Your task to perform on an android device: Search for 12ft 120W LED tube light on home depot Image 0: 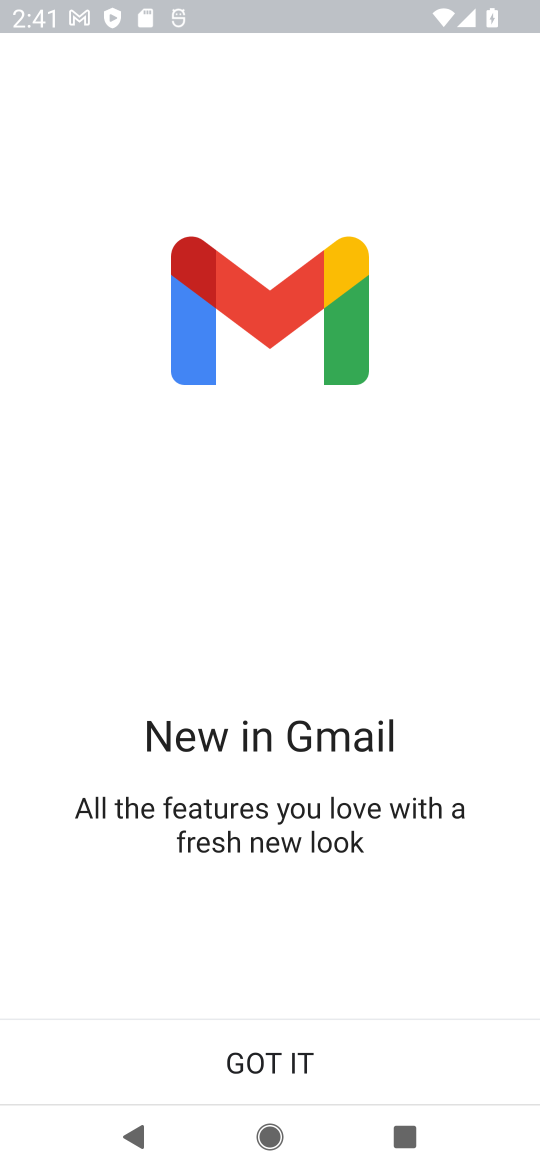
Step 0: press home button
Your task to perform on an android device: Search for 12ft 120W LED tube light on home depot Image 1: 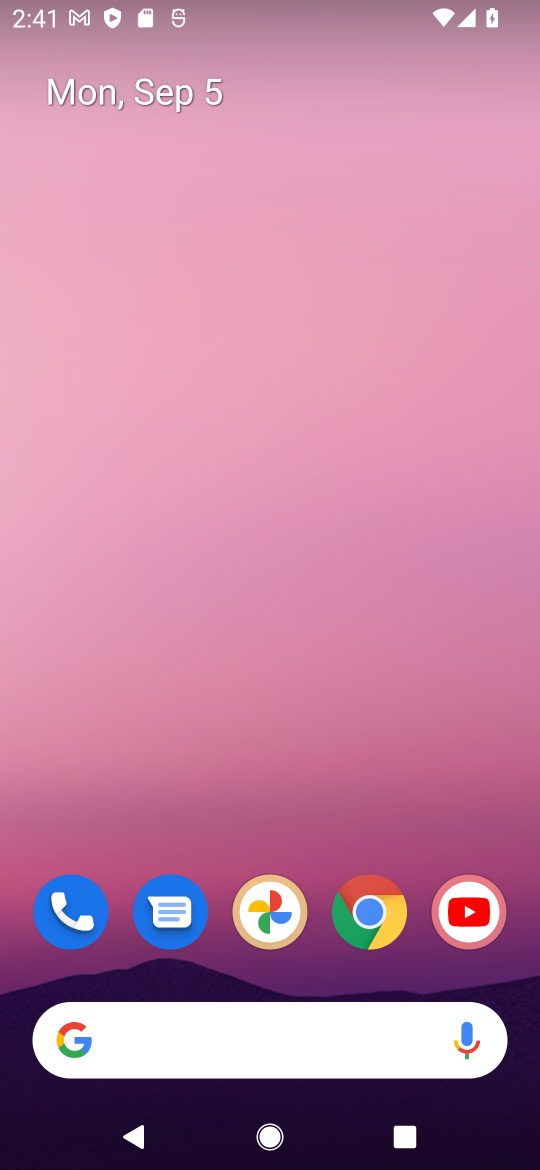
Step 1: click (364, 909)
Your task to perform on an android device: Search for 12ft 120W LED tube light on home depot Image 2: 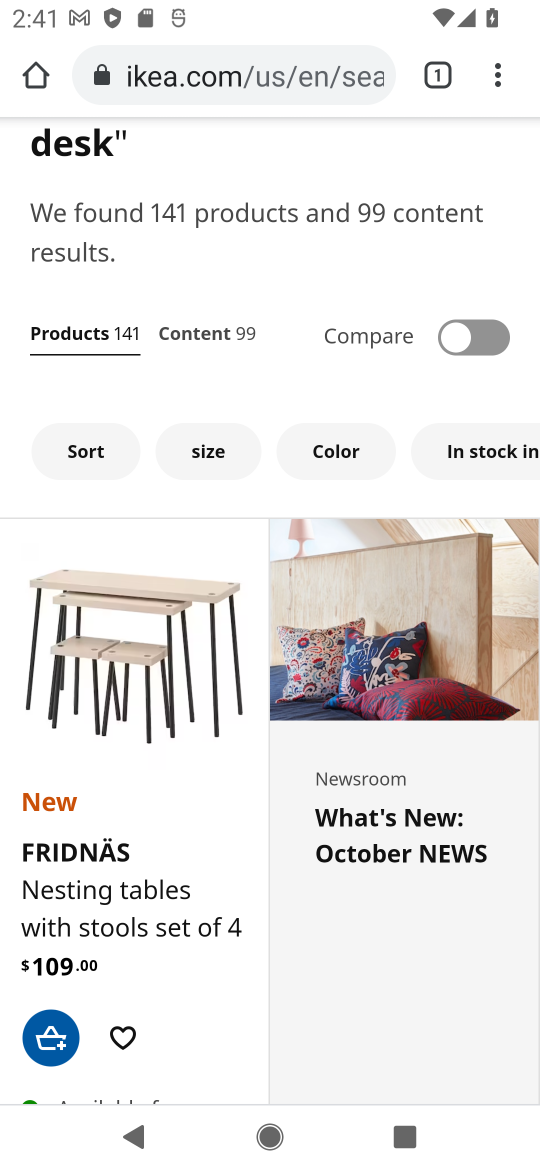
Step 2: click (268, 79)
Your task to perform on an android device: Search for 12ft 120W LED tube light on home depot Image 3: 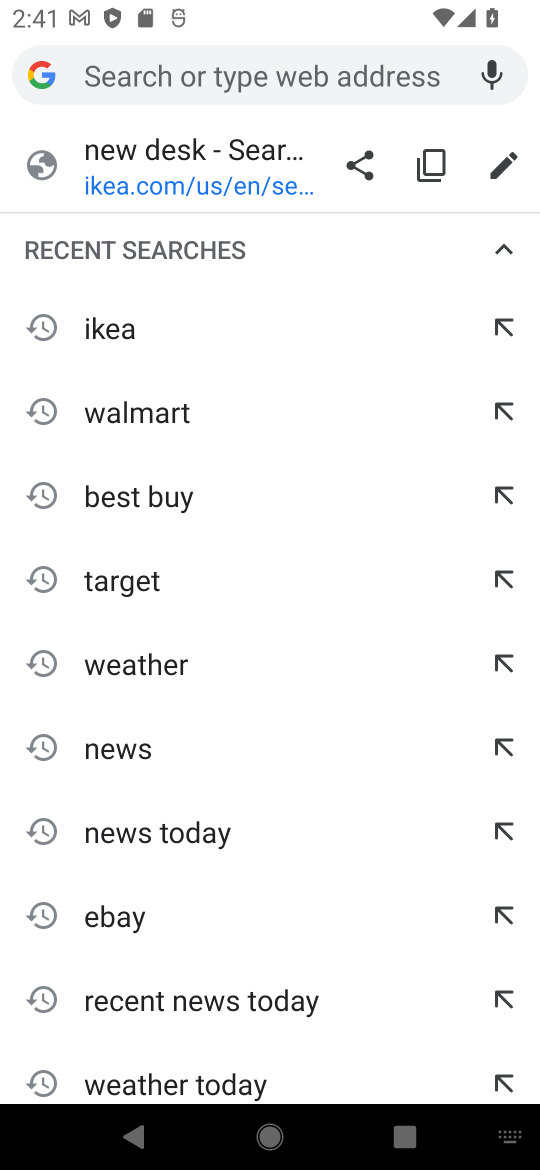
Step 3: type "home depot"
Your task to perform on an android device: Search for 12ft 120W LED tube light on home depot Image 4: 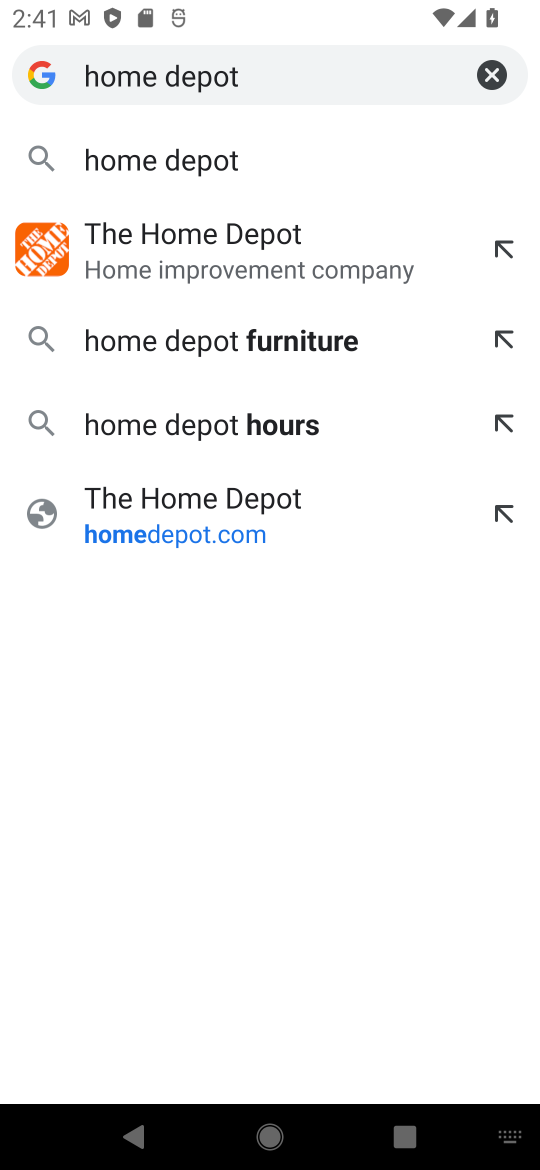
Step 4: click (296, 167)
Your task to perform on an android device: Search for 12ft 120W LED tube light on home depot Image 5: 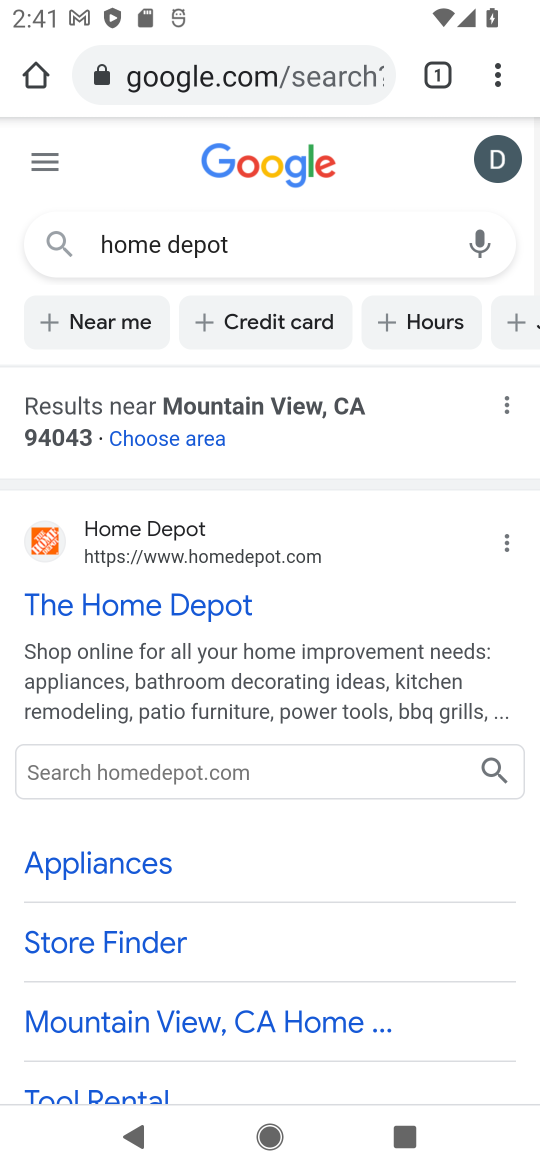
Step 5: click (213, 618)
Your task to perform on an android device: Search for 12ft 120W LED tube light on home depot Image 6: 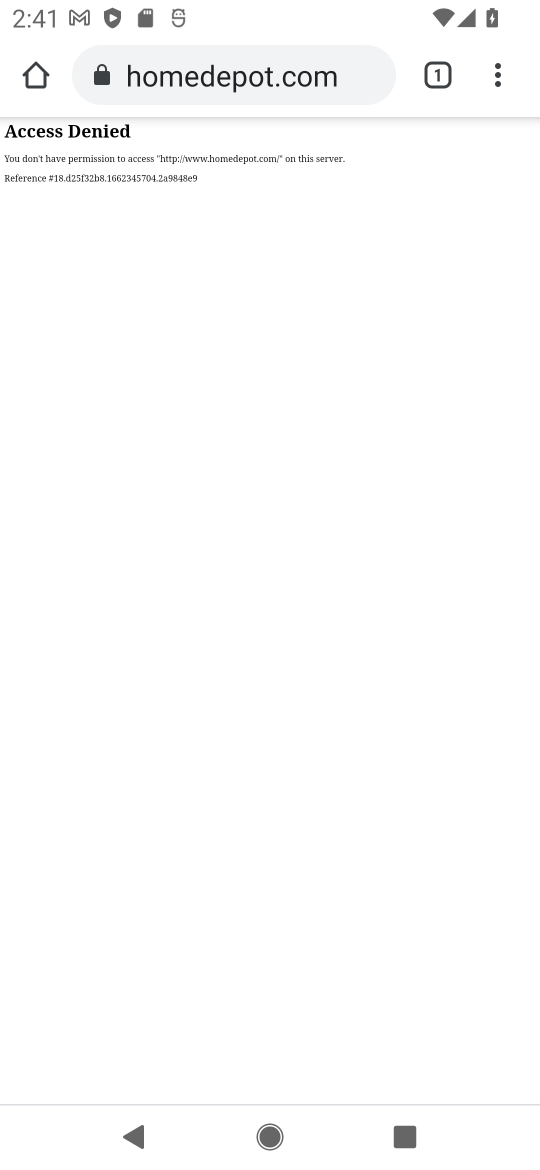
Step 6: task complete